Your task to perform on an android device: toggle wifi Image 0: 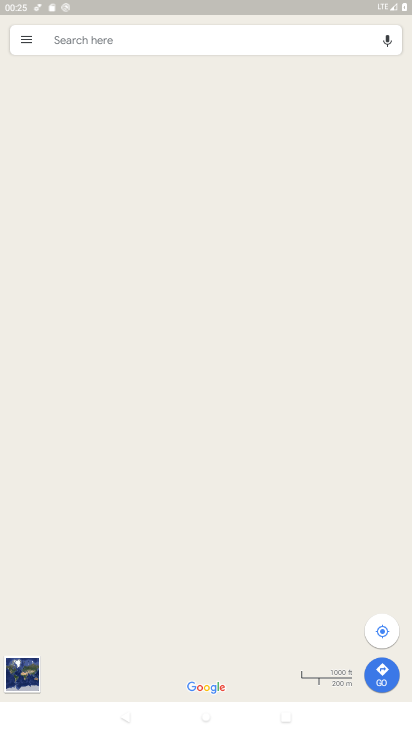
Step 0: press home button
Your task to perform on an android device: toggle wifi Image 1: 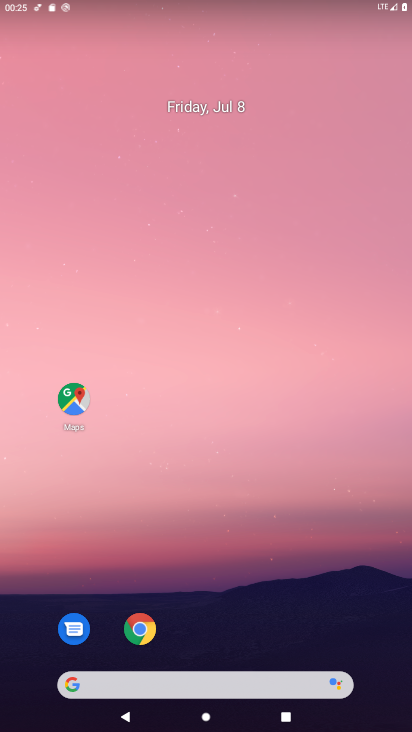
Step 1: drag from (248, 563) to (382, 14)
Your task to perform on an android device: toggle wifi Image 2: 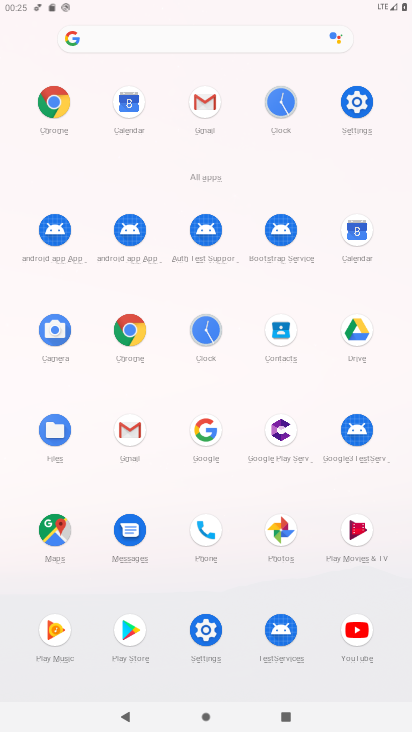
Step 2: click (355, 96)
Your task to perform on an android device: toggle wifi Image 3: 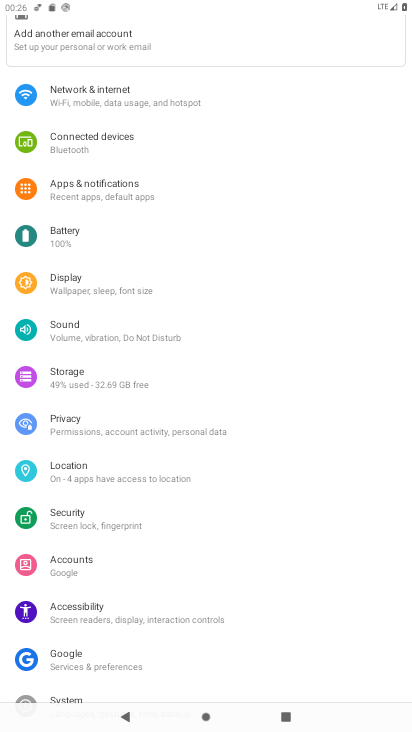
Step 3: click (123, 95)
Your task to perform on an android device: toggle wifi Image 4: 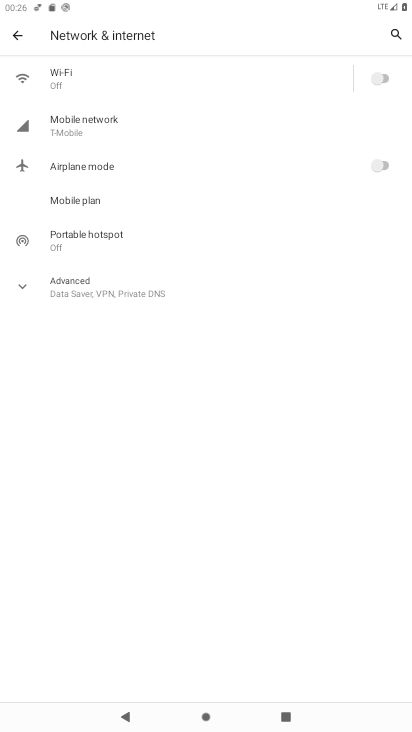
Step 4: click (380, 82)
Your task to perform on an android device: toggle wifi Image 5: 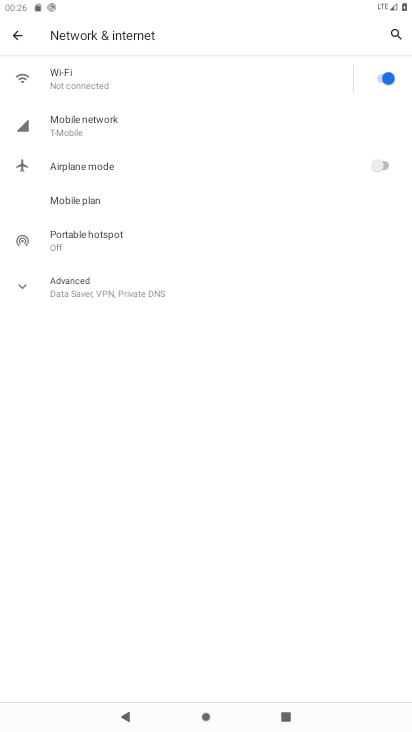
Step 5: task complete